Your task to perform on an android device: open a bookmark in the chrome app Image 0: 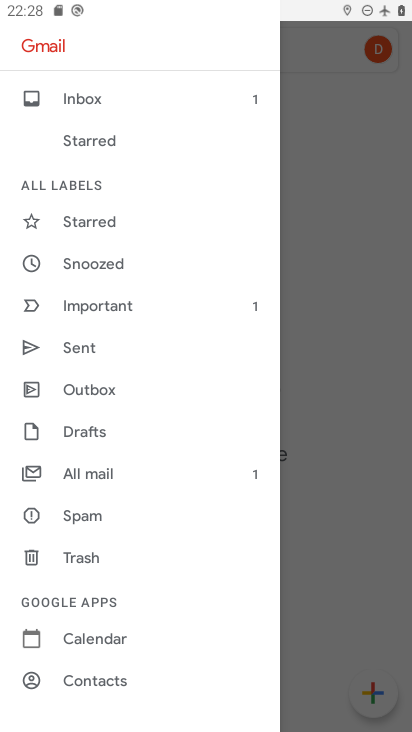
Step 0: press home button
Your task to perform on an android device: open a bookmark in the chrome app Image 1: 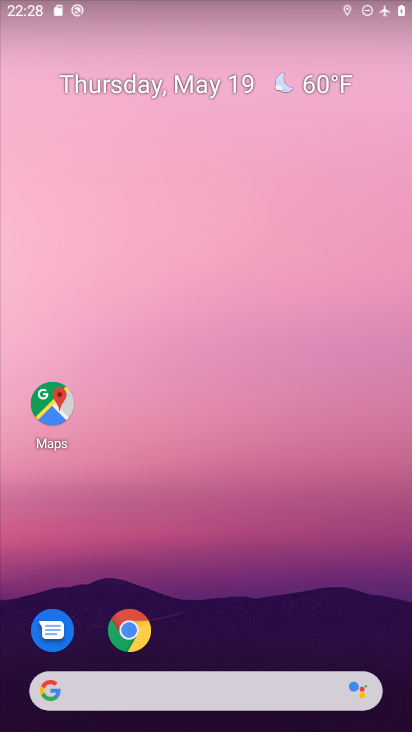
Step 1: click (134, 628)
Your task to perform on an android device: open a bookmark in the chrome app Image 2: 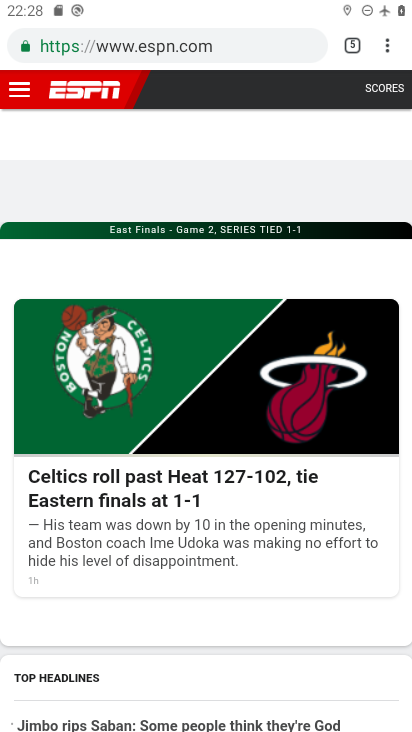
Step 2: click (389, 39)
Your task to perform on an android device: open a bookmark in the chrome app Image 3: 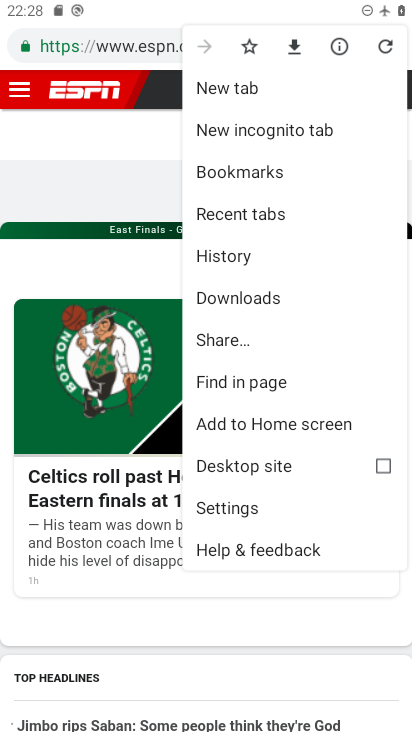
Step 3: click (262, 166)
Your task to perform on an android device: open a bookmark in the chrome app Image 4: 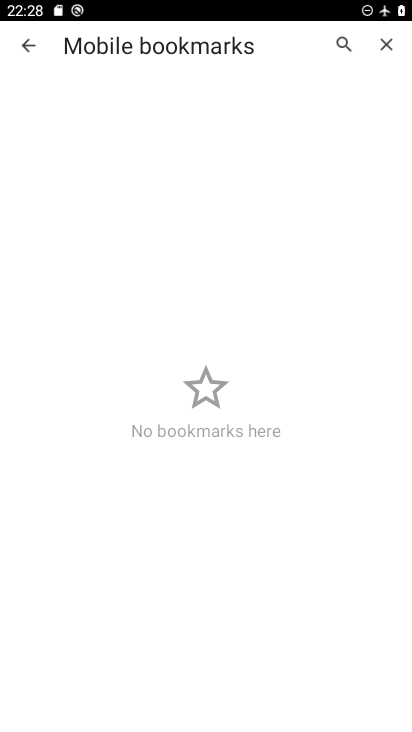
Step 4: task complete